Your task to perform on an android device: Go to Google maps Image 0: 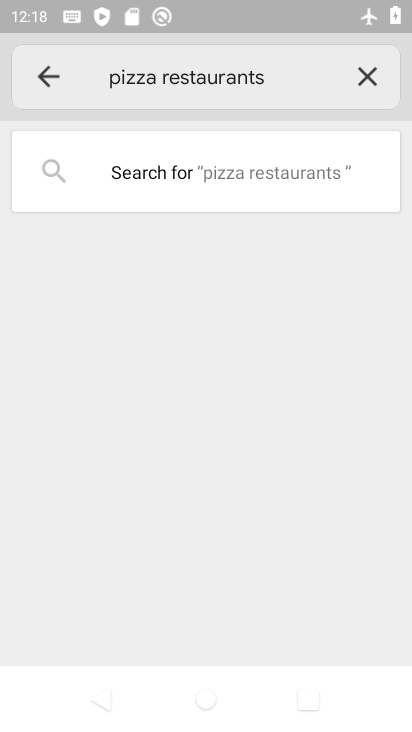
Step 0: press home button
Your task to perform on an android device: Go to Google maps Image 1: 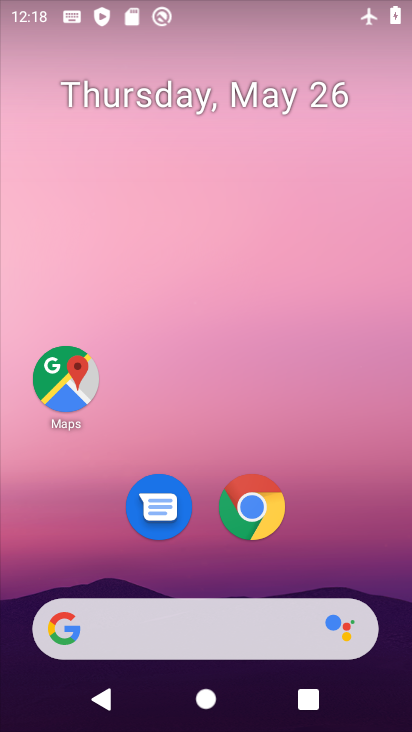
Step 1: click (77, 380)
Your task to perform on an android device: Go to Google maps Image 2: 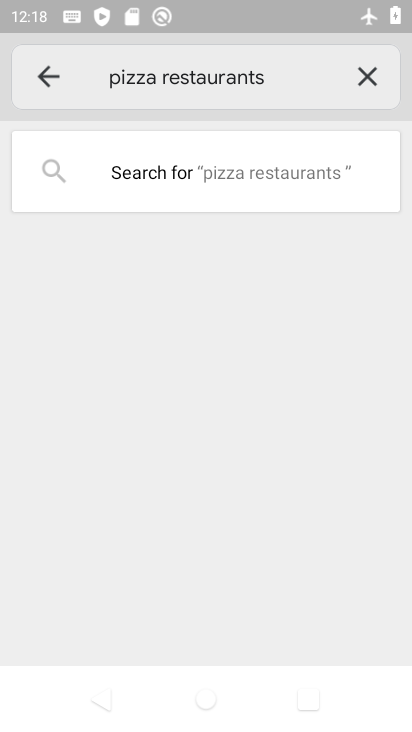
Step 2: task complete